Your task to perform on an android device: Open Yahoo.com Image 0: 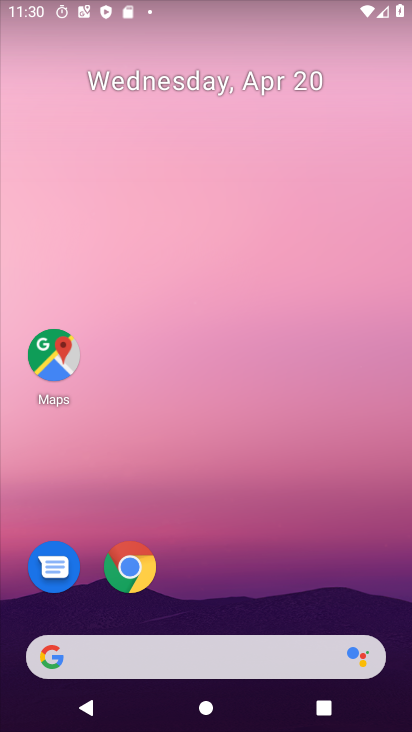
Step 0: click (128, 571)
Your task to perform on an android device: Open Yahoo.com Image 1: 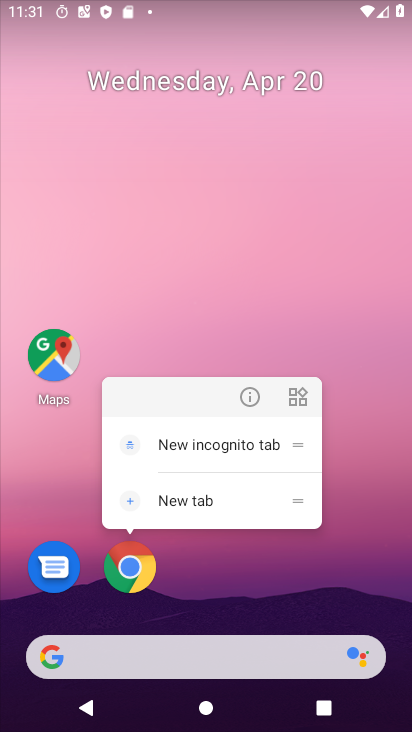
Step 1: click (241, 394)
Your task to perform on an android device: Open Yahoo.com Image 2: 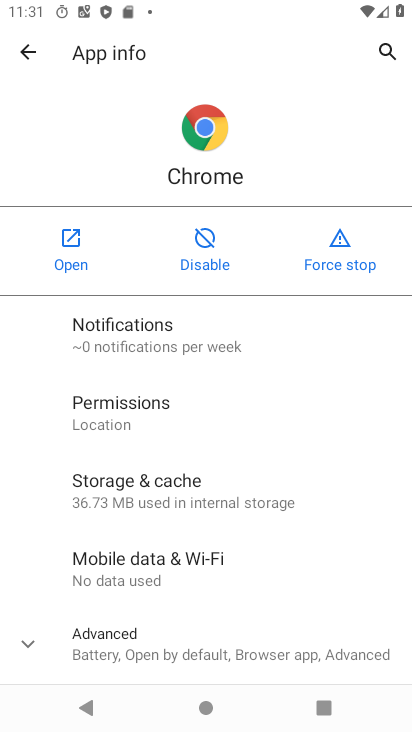
Step 2: click (78, 246)
Your task to perform on an android device: Open Yahoo.com Image 3: 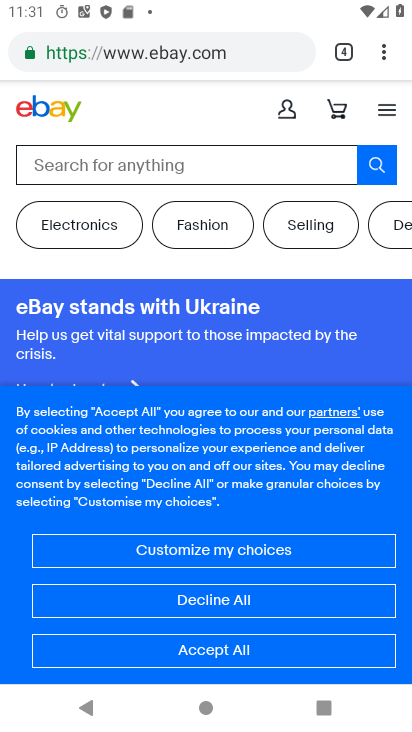
Step 3: click (350, 52)
Your task to perform on an android device: Open Yahoo.com Image 4: 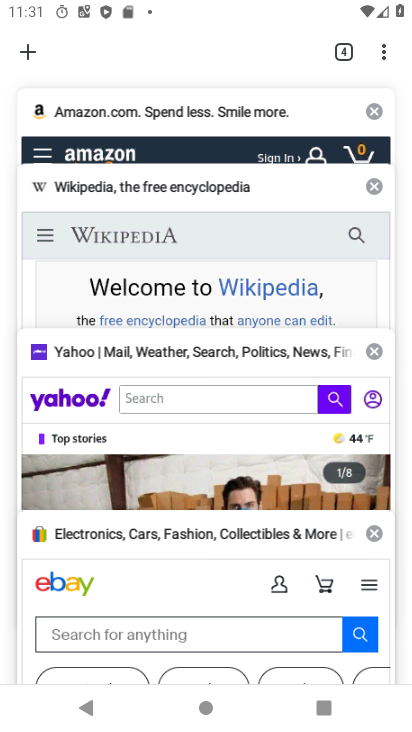
Step 4: click (153, 397)
Your task to perform on an android device: Open Yahoo.com Image 5: 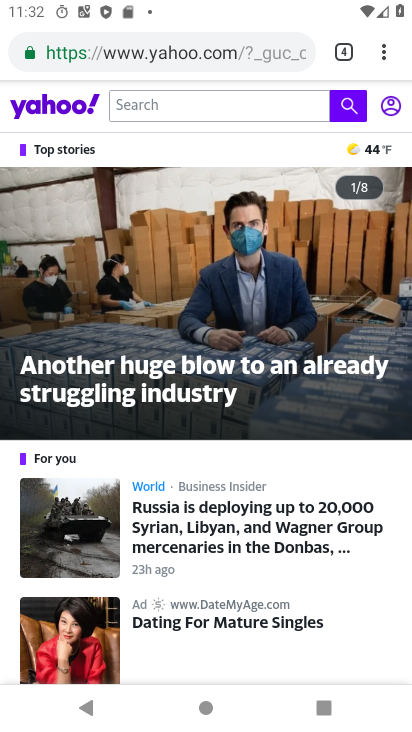
Step 5: task complete